Your task to perform on an android device: turn on priority inbox in the gmail app Image 0: 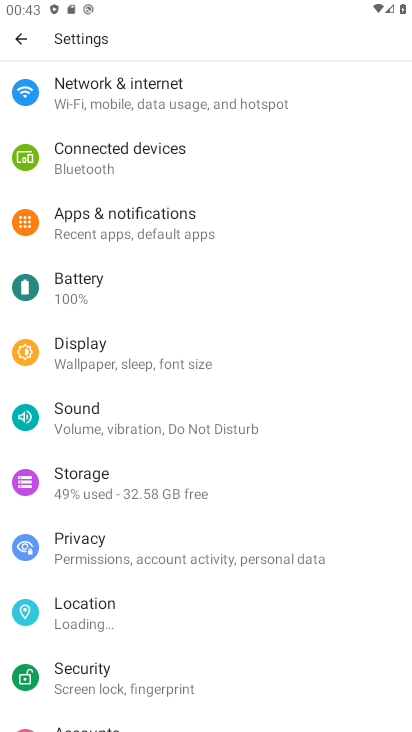
Step 0: press home button
Your task to perform on an android device: turn on priority inbox in the gmail app Image 1: 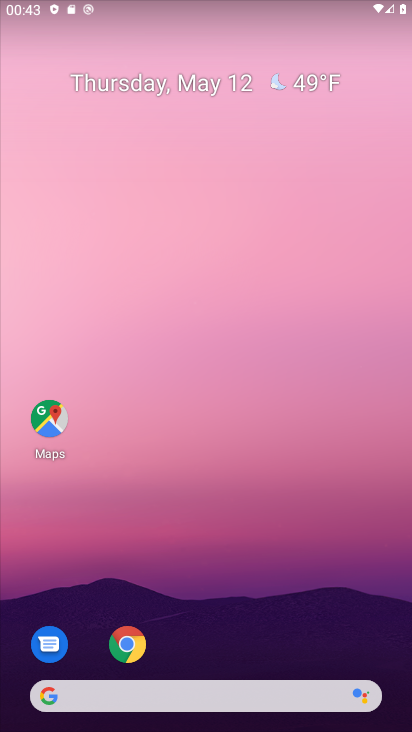
Step 1: drag from (269, 621) to (151, 106)
Your task to perform on an android device: turn on priority inbox in the gmail app Image 2: 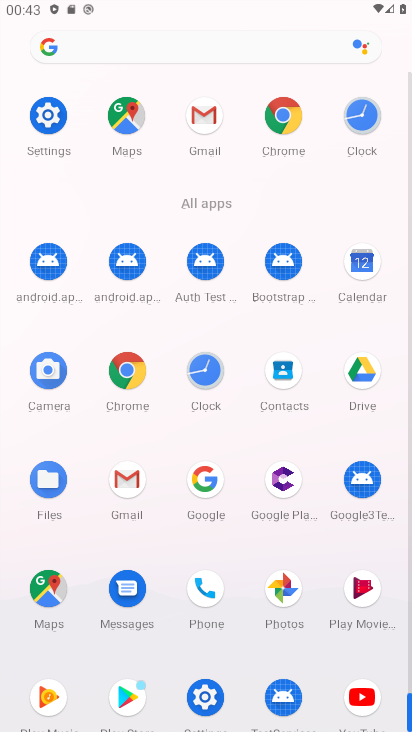
Step 2: click (126, 477)
Your task to perform on an android device: turn on priority inbox in the gmail app Image 3: 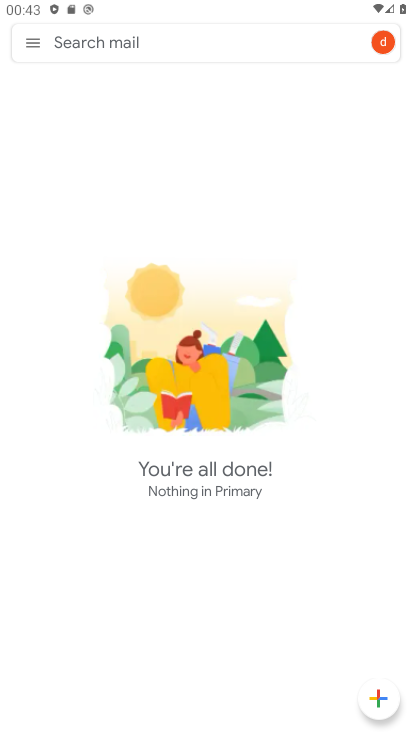
Step 3: click (32, 48)
Your task to perform on an android device: turn on priority inbox in the gmail app Image 4: 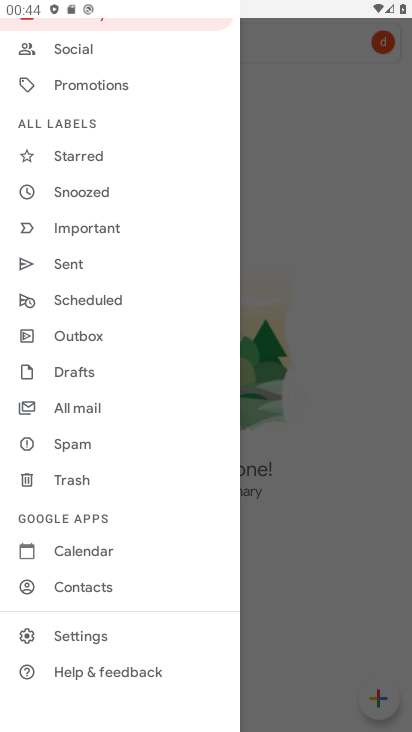
Step 4: click (78, 631)
Your task to perform on an android device: turn on priority inbox in the gmail app Image 5: 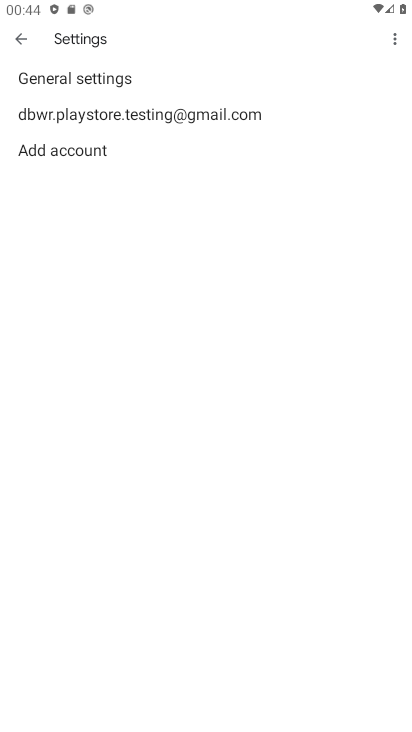
Step 5: click (96, 115)
Your task to perform on an android device: turn on priority inbox in the gmail app Image 6: 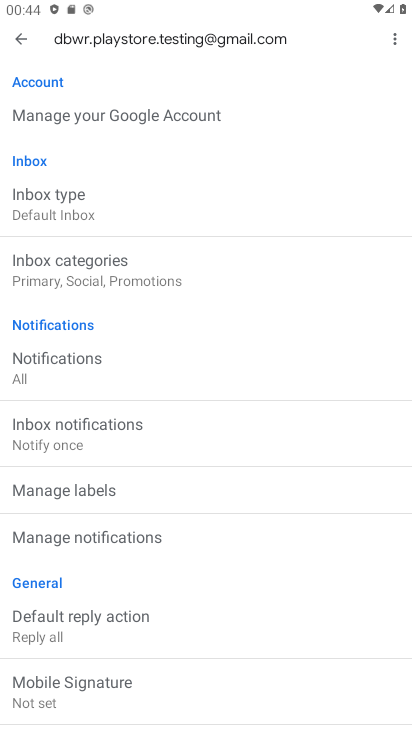
Step 6: click (71, 201)
Your task to perform on an android device: turn on priority inbox in the gmail app Image 7: 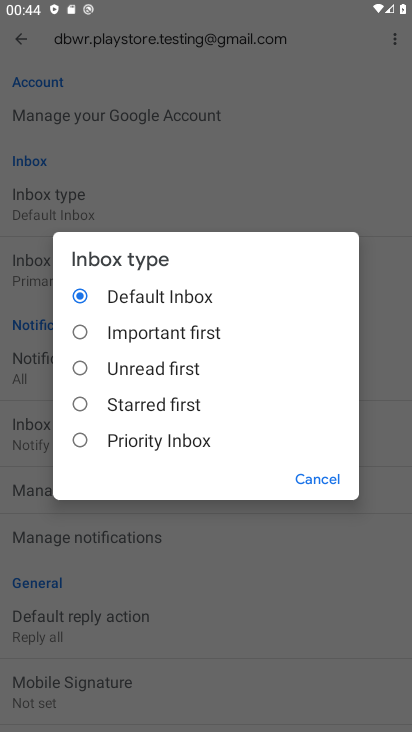
Step 7: click (80, 433)
Your task to perform on an android device: turn on priority inbox in the gmail app Image 8: 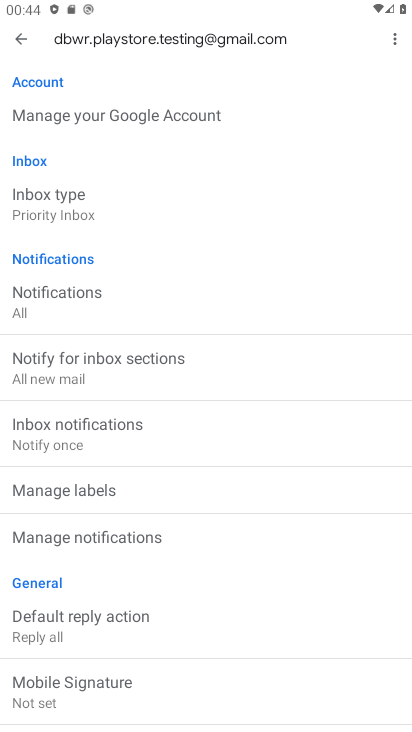
Step 8: task complete